Your task to perform on an android device: delete a single message in the gmail app Image 0: 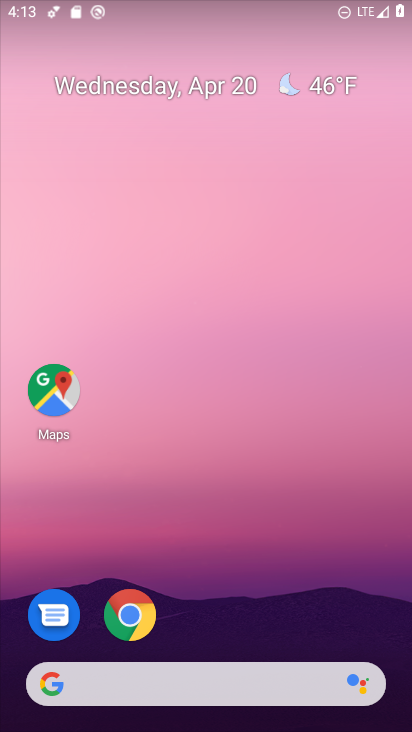
Step 0: drag from (274, 452) to (364, 55)
Your task to perform on an android device: delete a single message in the gmail app Image 1: 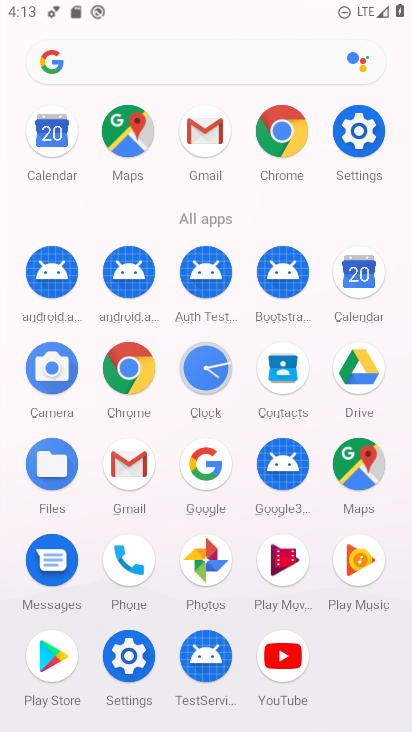
Step 1: click (197, 131)
Your task to perform on an android device: delete a single message in the gmail app Image 2: 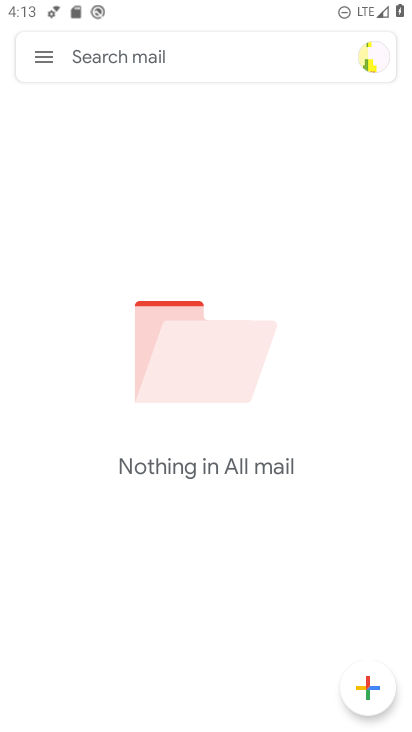
Step 2: click (44, 51)
Your task to perform on an android device: delete a single message in the gmail app Image 3: 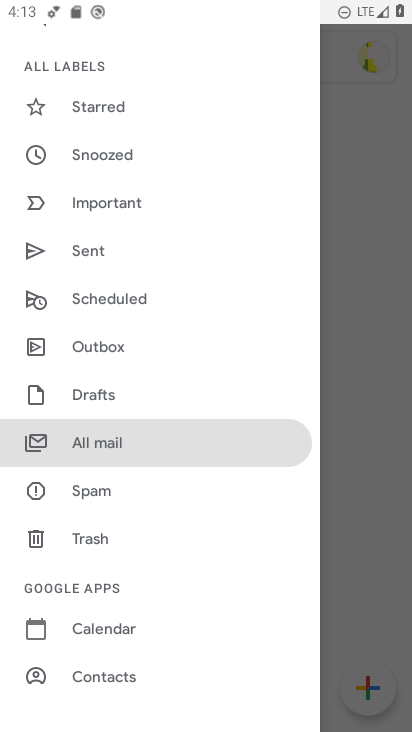
Step 3: click (97, 434)
Your task to perform on an android device: delete a single message in the gmail app Image 4: 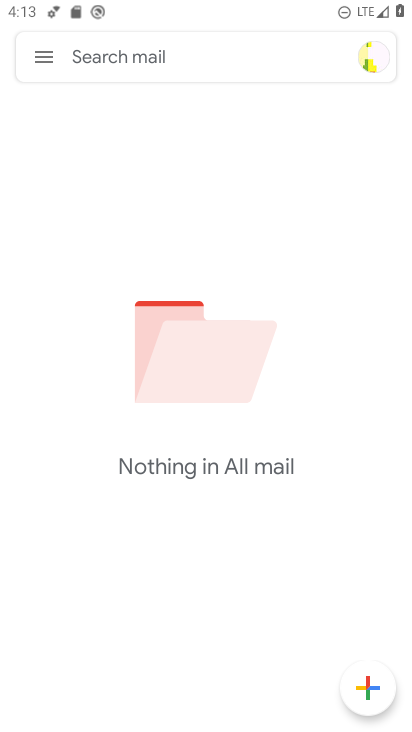
Step 4: task complete